Your task to perform on an android device: Open calendar and show me the fourth week of next month Image 0: 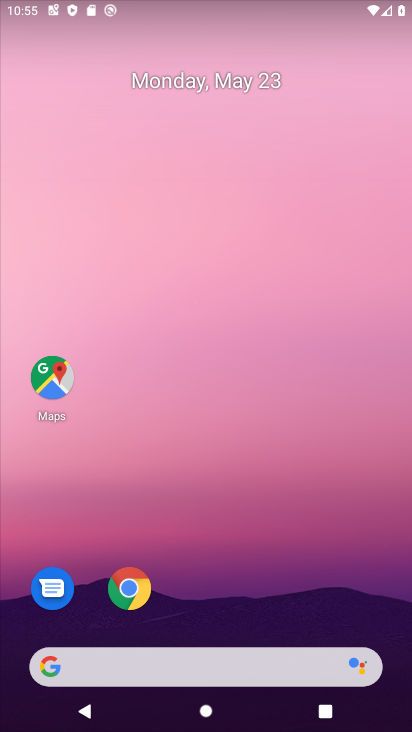
Step 0: drag from (239, 589) to (255, 168)
Your task to perform on an android device: Open calendar and show me the fourth week of next month Image 1: 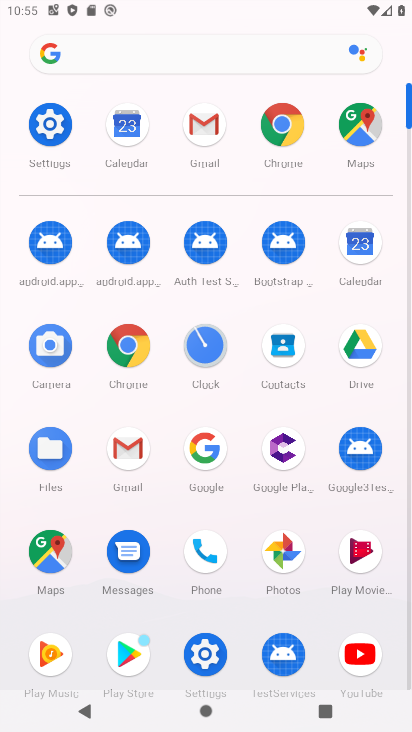
Step 1: click (132, 134)
Your task to perform on an android device: Open calendar and show me the fourth week of next month Image 2: 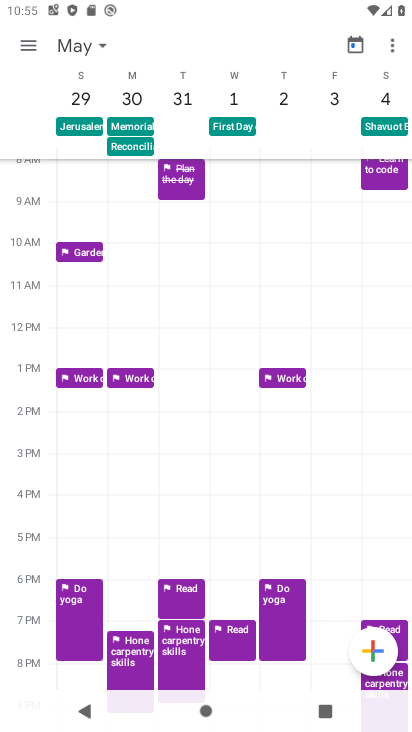
Step 2: click (87, 52)
Your task to perform on an android device: Open calendar and show me the fourth week of next month Image 3: 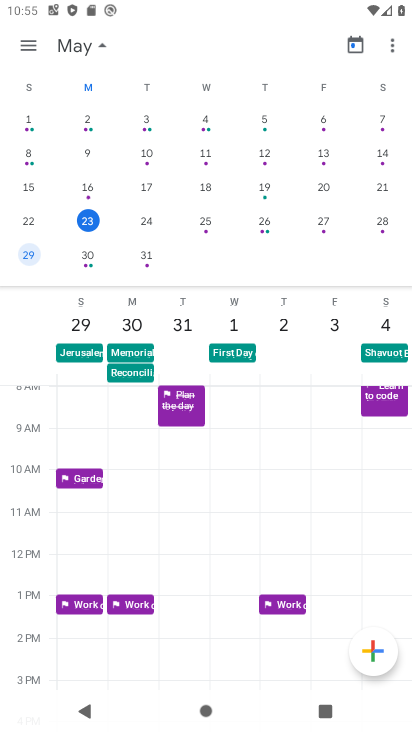
Step 3: drag from (366, 222) to (94, 200)
Your task to perform on an android device: Open calendar and show me the fourth week of next month Image 4: 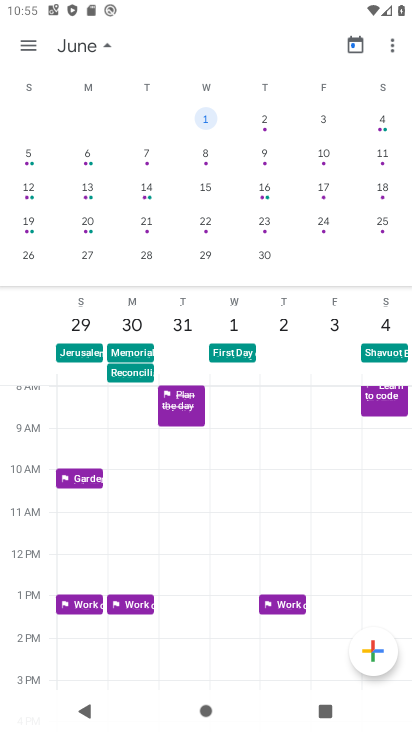
Step 4: click (94, 257)
Your task to perform on an android device: Open calendar and show me the fourth week of next month Image 5: 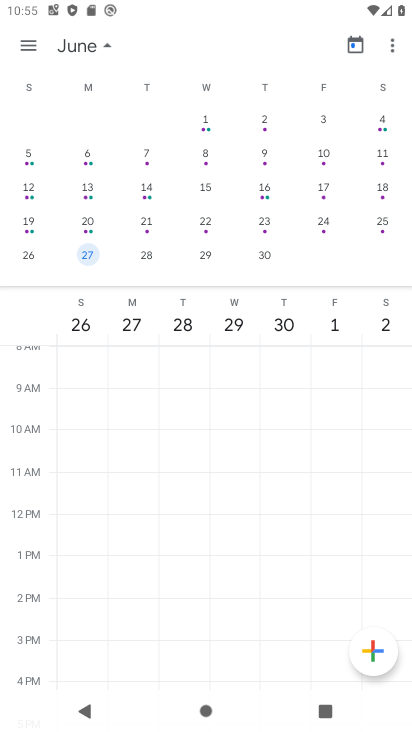
Step 5: task complete